Your task to perform on an android device: Search for "dell xps" on ebay.com, select the first entry, and add it to the cart. Image 0: 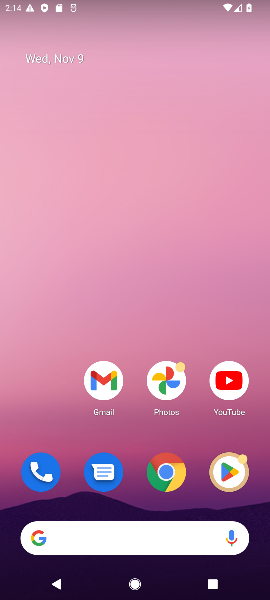
Step 0: click (123, 537)
Your task to perform on an android device: Search for "dell xps" on ebay.com, select the first entry, and add it to the cart. Image 1: 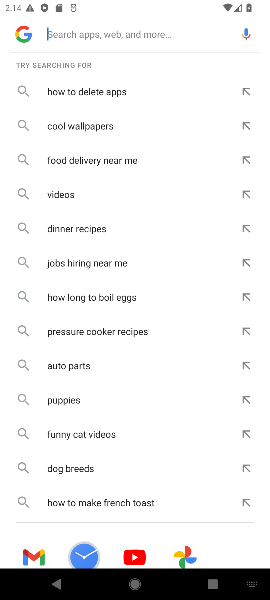
Step 1: type "ebay.com"
Your task to perform on an android device: Search for "dell xps" on ebay.com, select the first entry, and add it to the cart. Image 2: 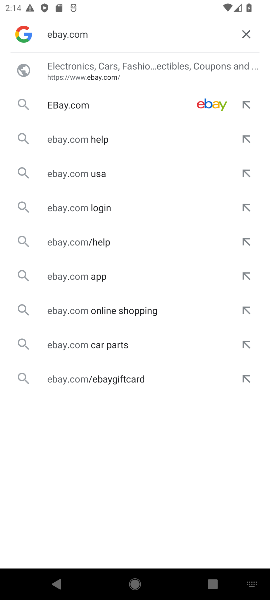
Step 2: click (75, 103)
Your task to perform on an android device: Search for "dell xps" on ebay.com, select the first entry, and add it to the cart. Image 3: 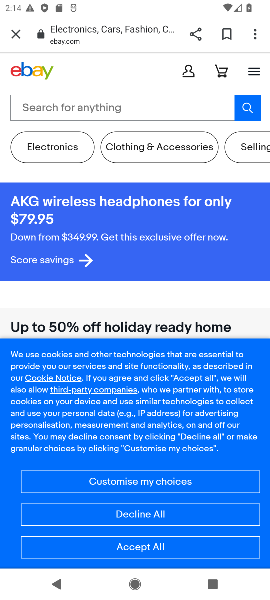
Step 3: click (115, 550)
Your task to perform on an android device: Search for "dell xps" on ebay.com, select the first entry, and add it to the cart. Image 4: 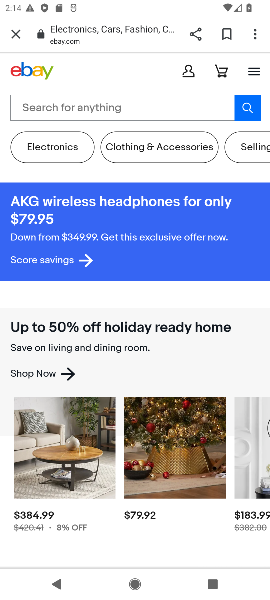
Step 4: click (58, 107)
Your task to perform on an android device: Search for "dell xps" on ebay.com, select the first entry, and add it to the cart. Image 5: 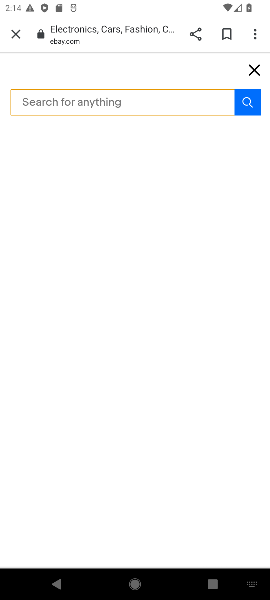
Step 5: type "dell xps"
Your task to perform on an android device: Search for "dell xps" on ebay.com, select the first entry, and add it to the cart. Image 6: 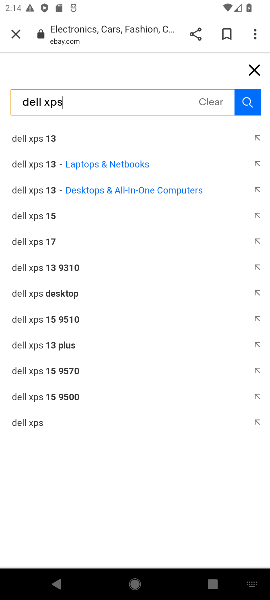
Step 6: click (40, 422)
Your task to perform on an android device: Search for "dell xps" on ebay.com, select the first entry, and add it to the cart. Image 7: 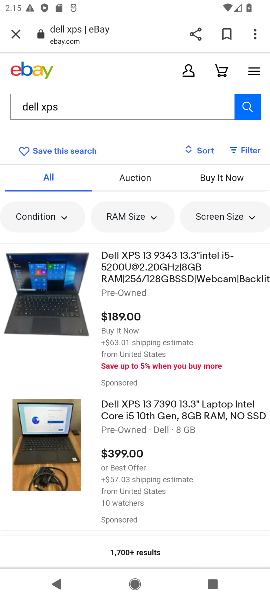
Step 7: click (149, 272)
Your task to perform on an android device: Search for "dell xps" on ebay.com, select the first entry, and add it to the cart. Image 8: 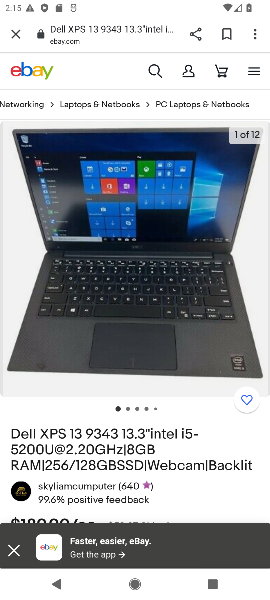
Step 8: drag from (201, 492) to (206, 309)
Your task to perform on an android device: Search for "dell xps" on ebay.com, select the first entry, and add it to the cart. Image 9: 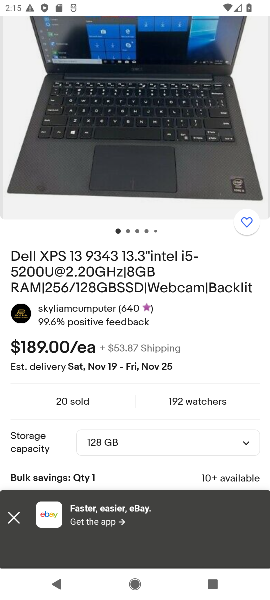
Step 9: drag from (213, 321) to (179, 86)
Your task to perform on an android device: Search for "dell xps" on ebay.com, select the first entry, and add it to the cart. Image 10: 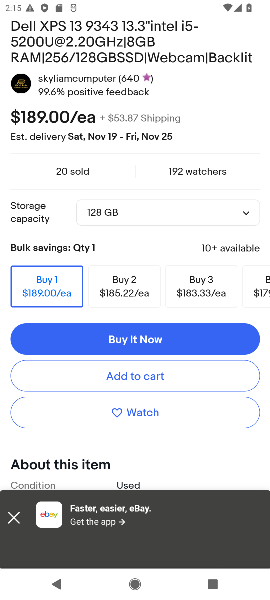
Step 10: click (147, 371)
Your task to perform on an android device: Search for "dell xps" on ebay.com, select the first entry, and add it to the cart. Image 11: 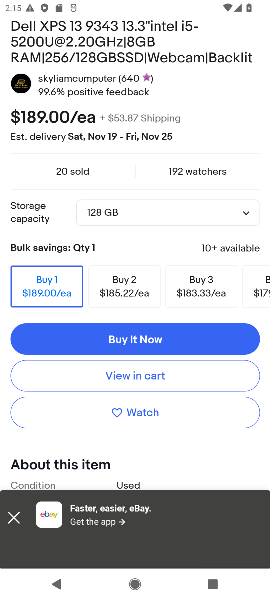
Step 11: task complete